Your task to perform on an android device: Open Google Maps Image 0: 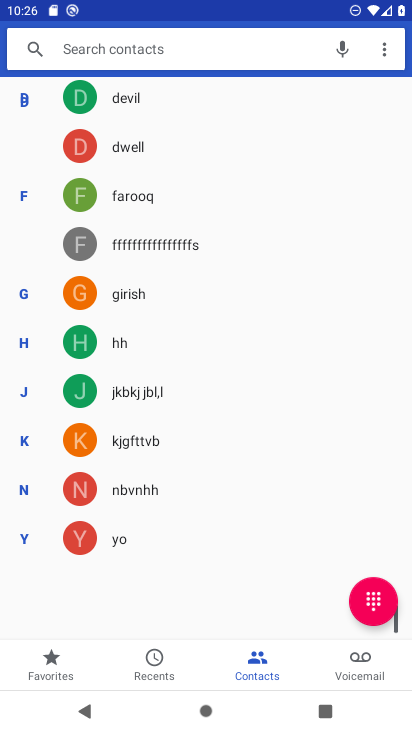
Step 0: press home button
Your task to perform on an android device: Open Google Maps Image 1: 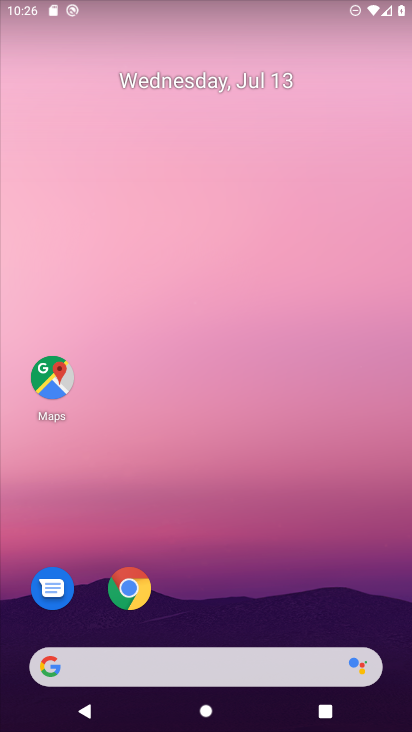
Step 1: drag from (218, 628) to (213, 20)
Your task to perform on an android device: Open Google Maps Image 2: 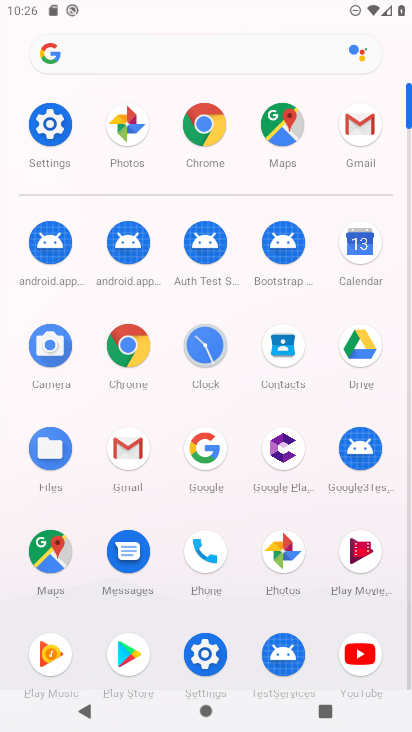
Step 2: click (57, 552)
Your task to perform on an android device: Open Google Maps Image 3: 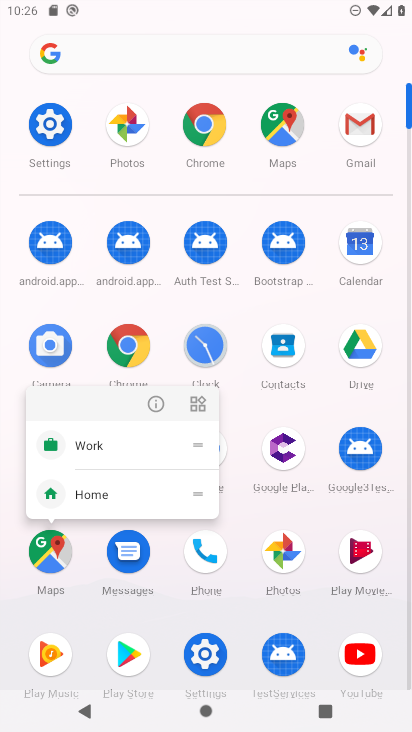
Step 3: click (57, 551)
Your task to perform on an android device: Open Google Maps Image 4: 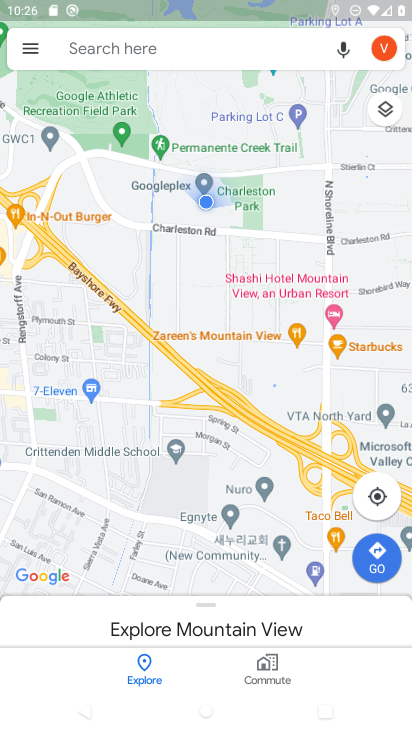
Step 4: task complete